Your task to perform on an android device: Open Google Chrome Image 0: 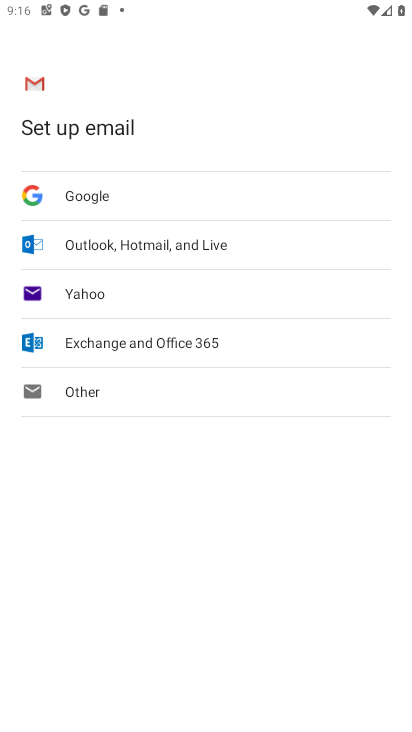
Step 0: press home button
Your task to perform on an android device: Open Google Chrome Image 1: 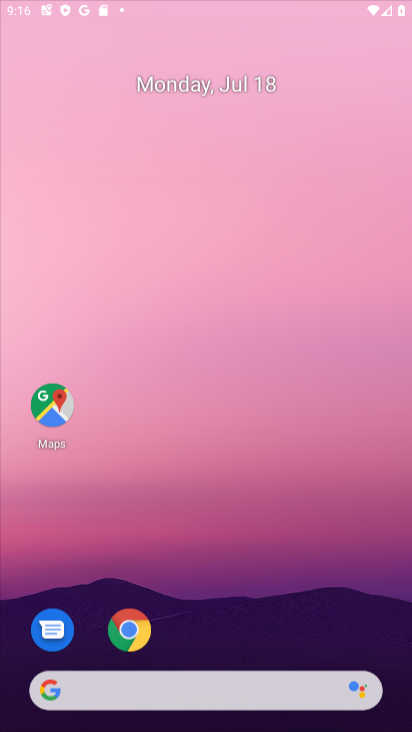
Step 1: drag from (373, 652) to (200, 45)
Your task to perform on an android device: Open Google Chrome Image 2: 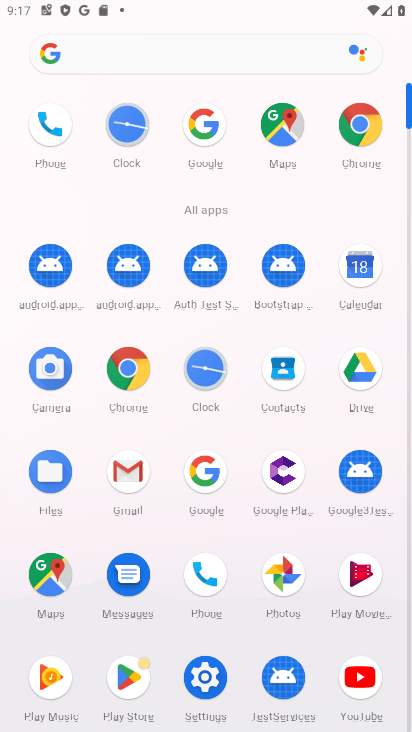
Step 2: click (137, 383)
Your task to perform on an android device: Open Google Chrome Image 3: 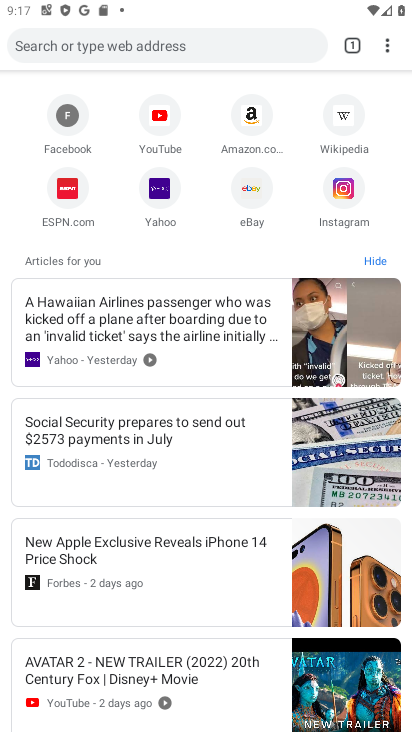
Step 3: task complete